Your task to perform on an android device: Open network settings Image 0: 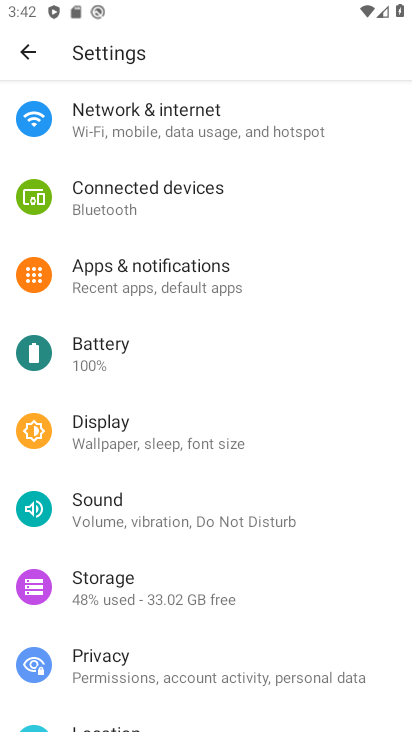
Step 0: drag from (320, 176) to (284, 434)
Your task to perform on an android device: Open network settings Image 1: 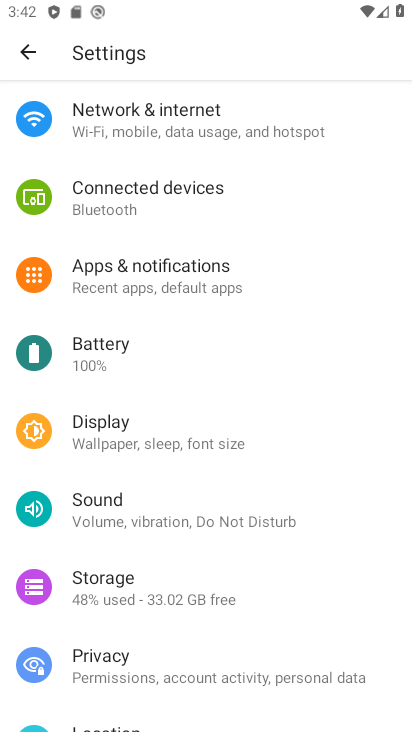
Step 1: click (201, 123)
Your task to perform on an android device: Open network settings Image 2: 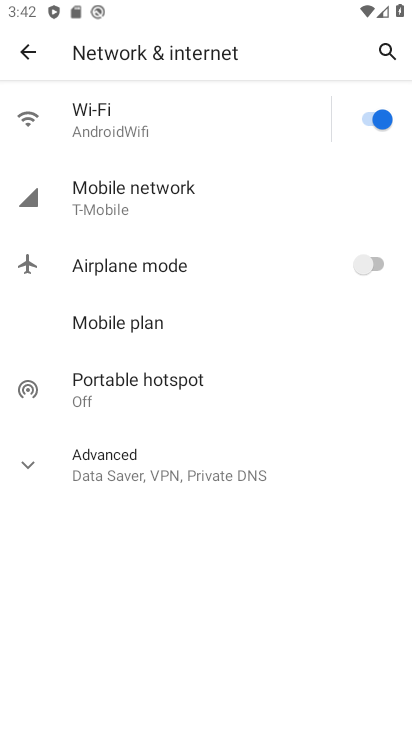
Step 2: click (168, 121)
Your task to perform on an android device: Open network settings Image 3: 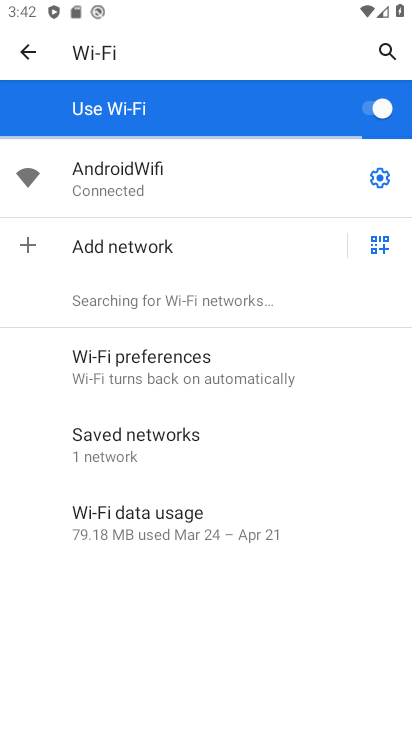
Step 3: click (21, 45)
Your task to perform on an android device: Open network settings Image 4: 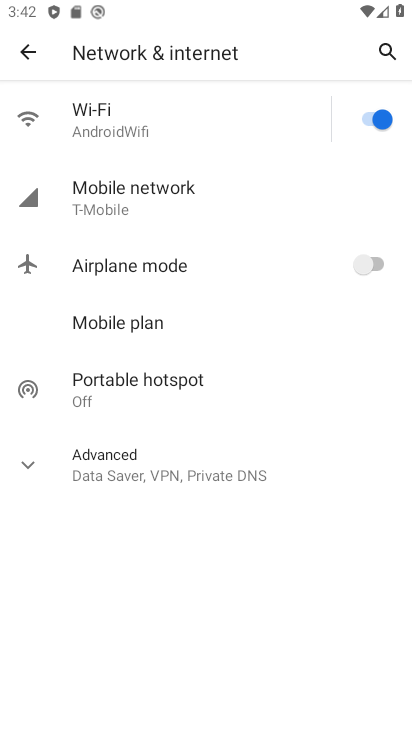
Step 4: click (148, 218)
Your task to perform on an android device: Open network settings Image 5: 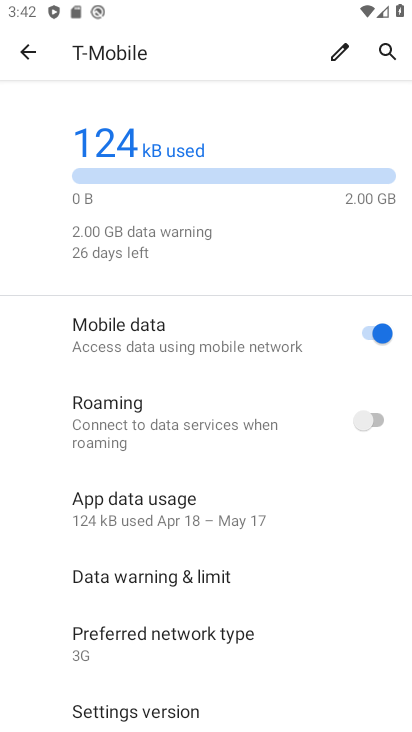
Step 5: click (22, 53)
Your task to perform on an android device: Open network settings Image 6: 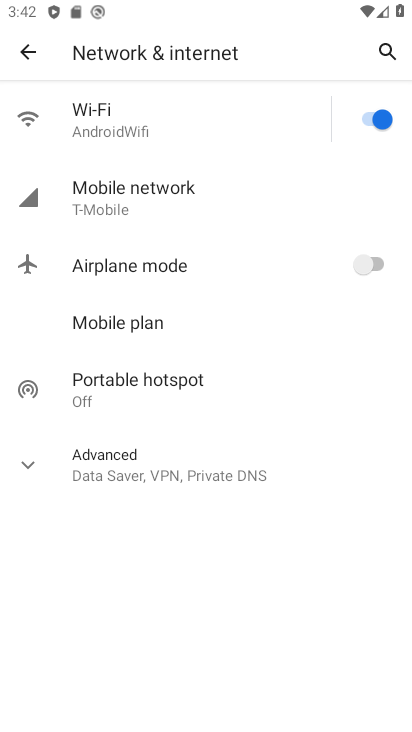
Step 6: click (128, 128)
Your task to perform on an android device: Open network settings Image 7: 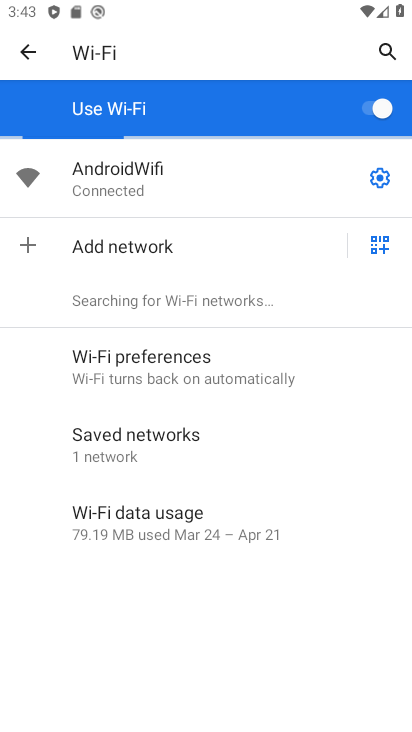
Step 7: task complete